Your task to perform on an android device: delete browsing data in the chrome app Image 0: 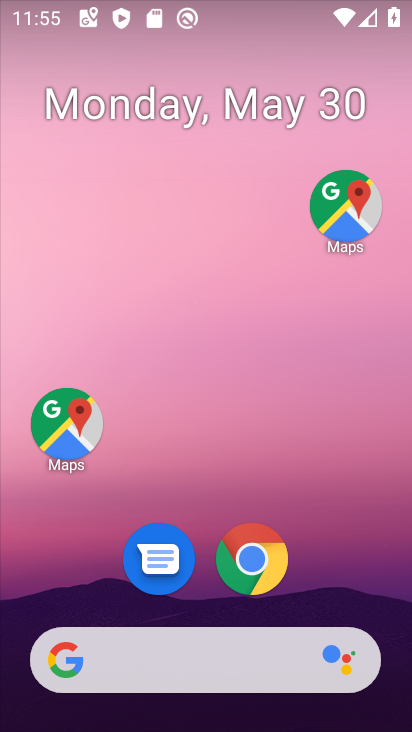
Step 0: click (251, 564)
Your task to perform on an android device: delete browsing data in the chrome app Image 1: 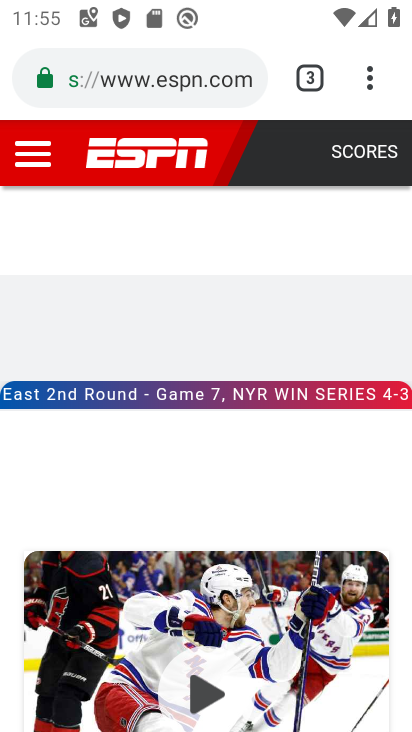
Step 1: drag from (369, 77) to (130, 178)
Your task to perform on an android device: delete browsing data in the chrome app Image 2: 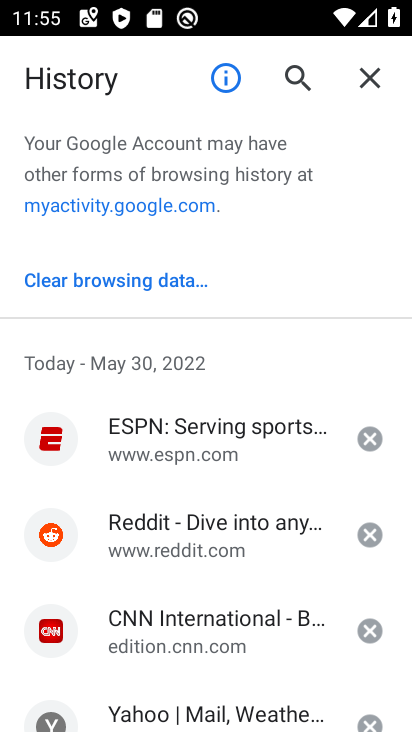
Step 2: click (164, 287)
Your task to perform on an android device: delete browsing data in the chrome app Image 3: 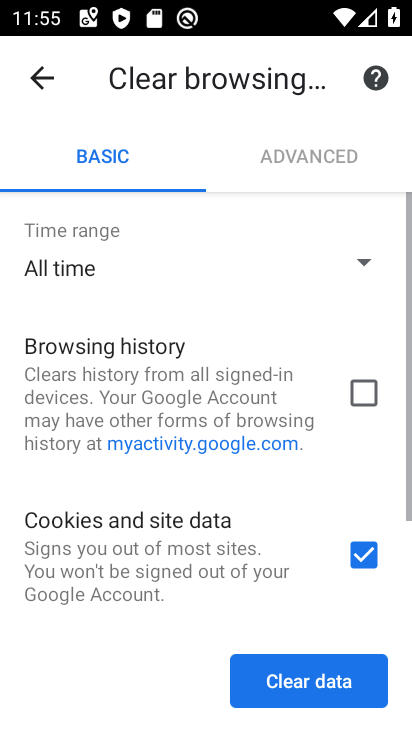
Step 3: click (379, 394)
Your task to perform on an android device: delete browsing data in the chrome app Image 4: 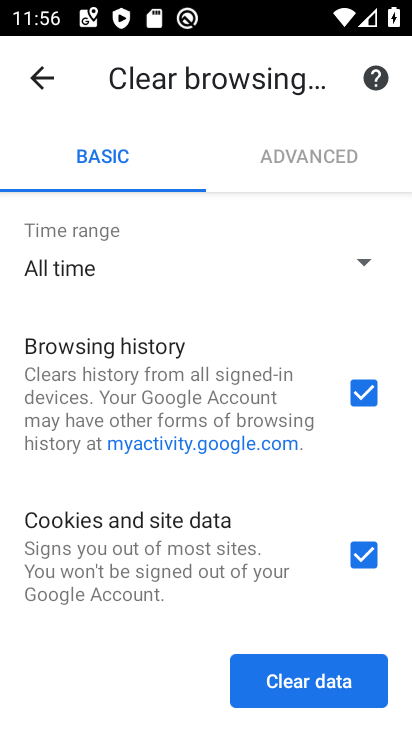
Step 4: click (323, 684)
Your task to perform on an android device: delete browsing data in the chrome app Image 5: 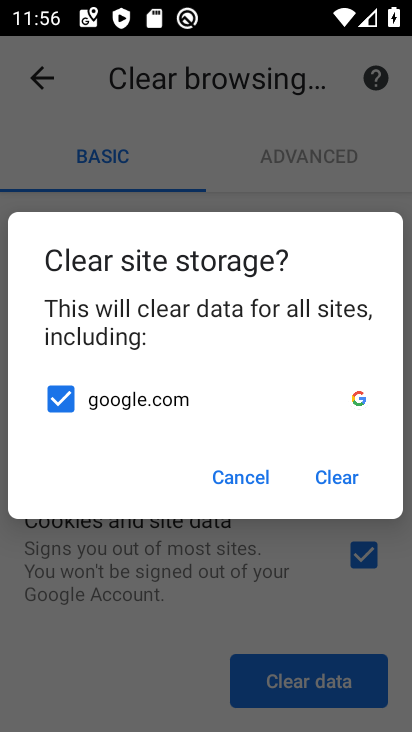
Step 5: click (323, 480)
Your task to perform on an android device: delete browsing data in the chrome app Image 6: 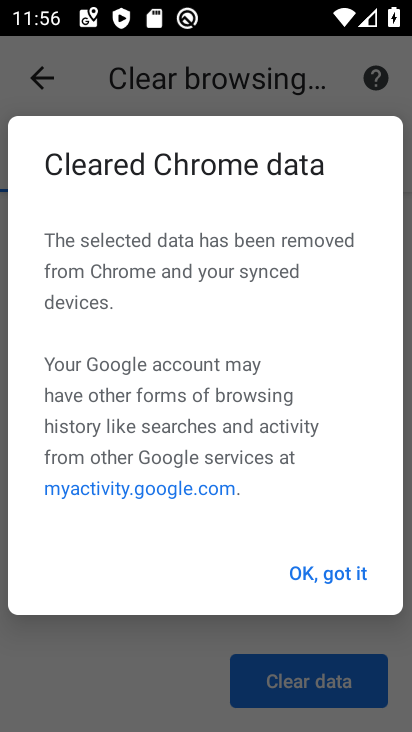
Step 6: click (307, 574)
Your task to perform on an android device: delete browsing data in the chrome app Image 7: 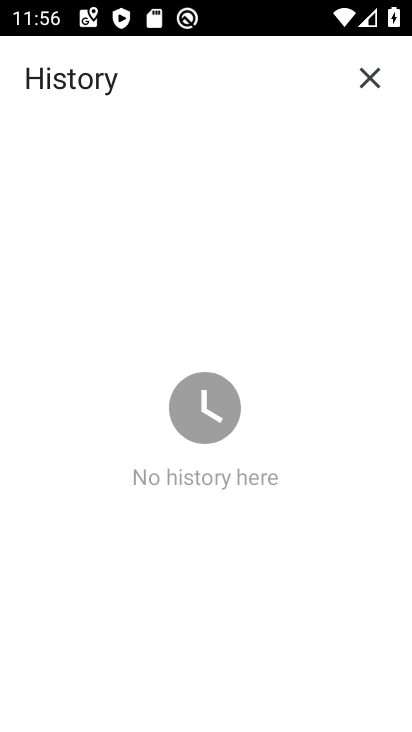
Step 7: task complete